Your task to perform on an android device: check the backup settings in the google photos Image 0: 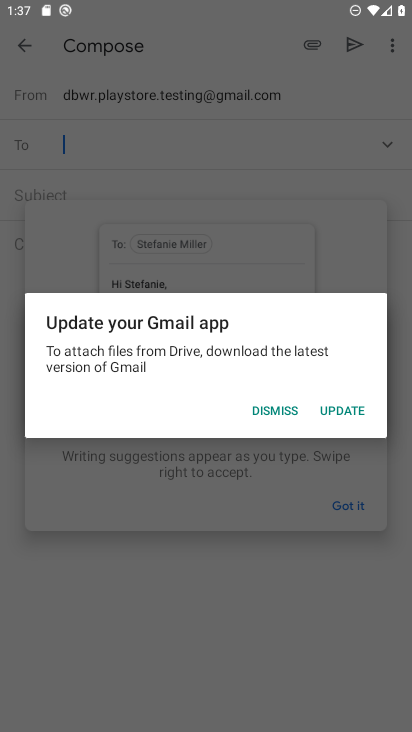
Step 0: press home button
Your task to perform on an android device: check the backup settings in the google photos Image 1: 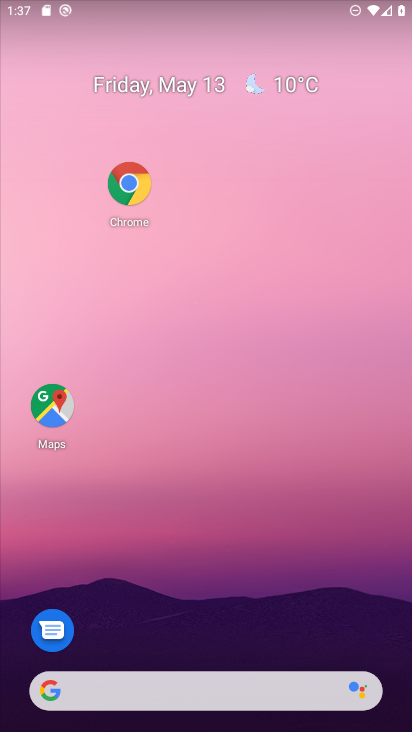
Step 1: drag from (218, 676) to (232, 209)
Your task to perform on an android device: check the backup settings in the google photos Image 2: 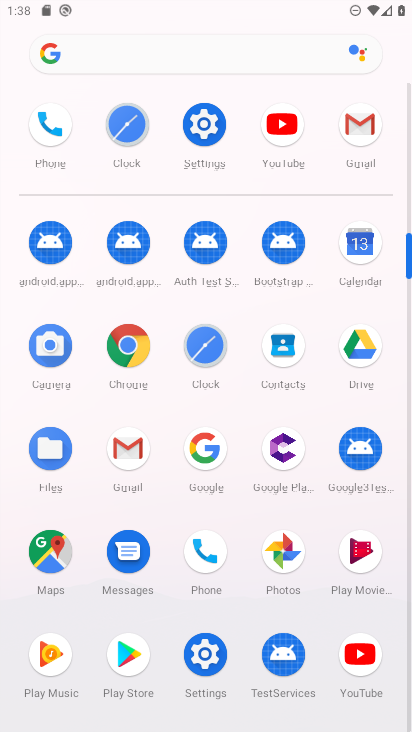
Step 2: click (262, 567)
Your task to perform on an android device: check the backup settings in the google photos Image 3: 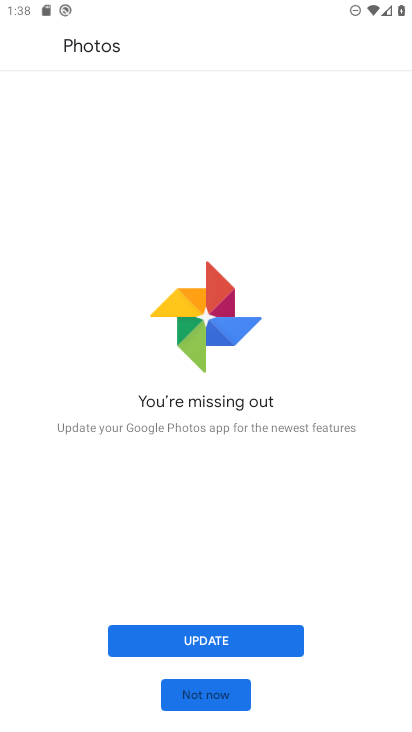
Step 3: click (190, 691)
Your task to perform on an android device: check the backup settings in the google photos Image 4: 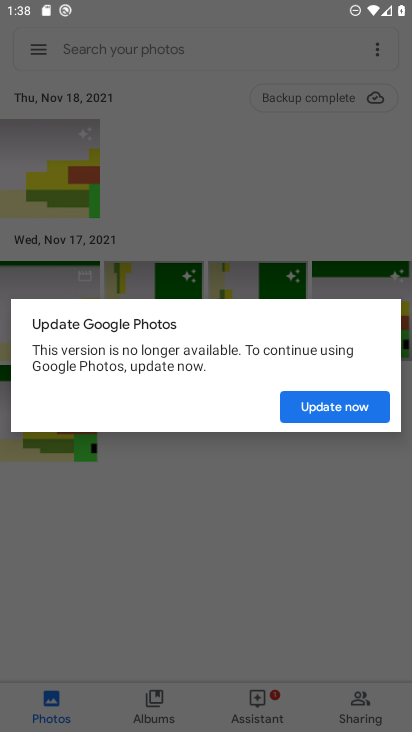
Step 4: click (367, 421)
Your task to perform on an android device: check the backup settings in the google photos Image 5: 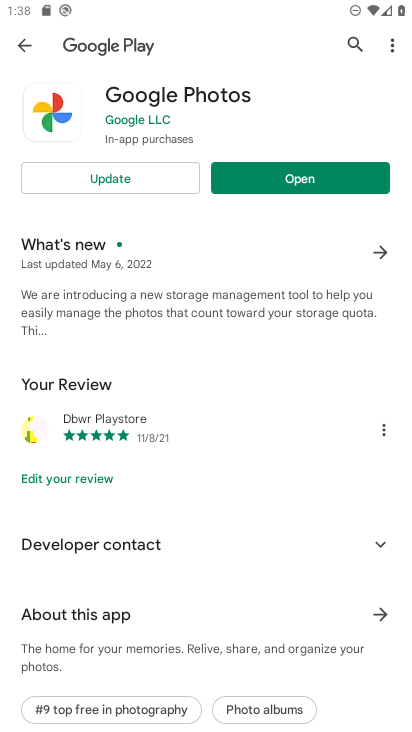
Step 5: click (186, 189)
Your task to perform on an android device: check the backup settings in the google photos Image 6: 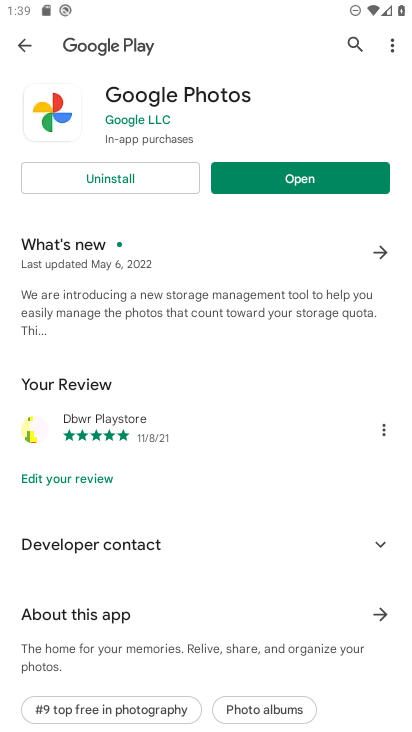
Step 6: click (251, 187)
Your task to perform on an android device: check the backup settings in the google photos Image 7: 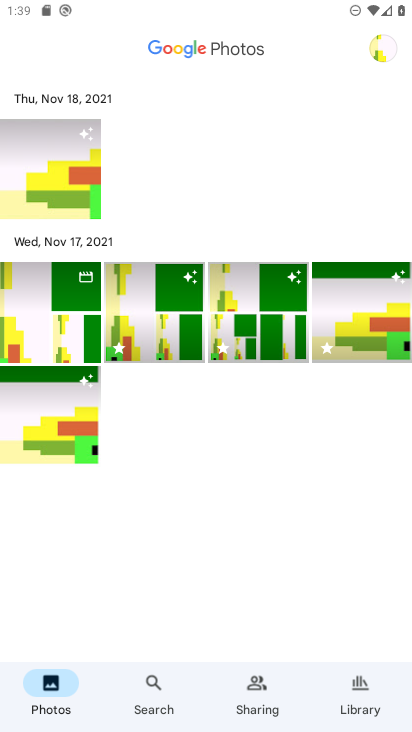
Step 7: click (384, 42)
Your task to perform on an android device: check the backup settings in the google photos Image 8: 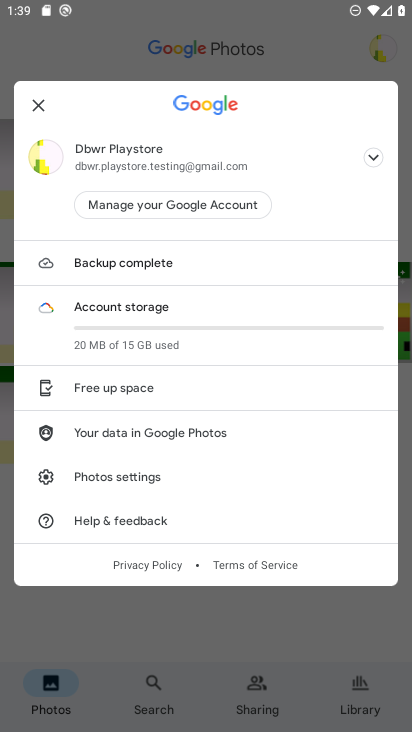
Step 8: click (128, 476)
Your task to perform on an android device: check the backup settings in the google photos Image 9: 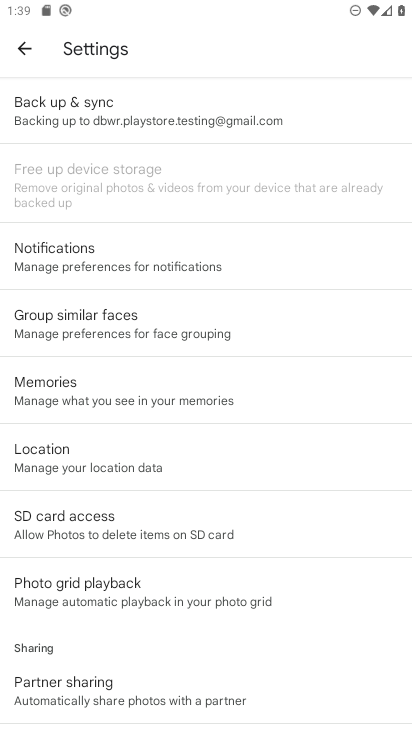
Step 9: click (141, 99)
Your task to perform on an android device: check the backup settings in the google photos Image 10: 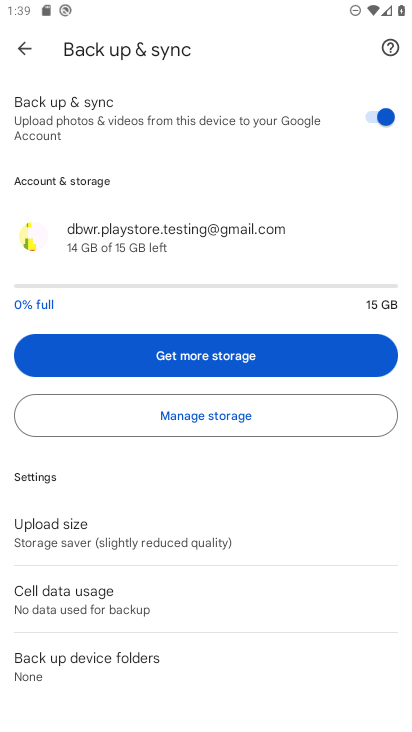
Step 10: task complete